Your task to perform on an android device: delete a single message in the gmail app Image 0: 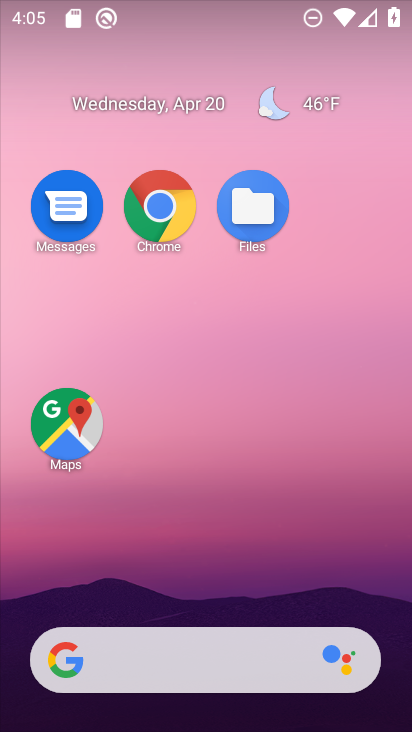
Step 0: drag from (169, 602) to (313, 3)
Your task to perform on an android device: delete a single message in the gmail app Image 1: 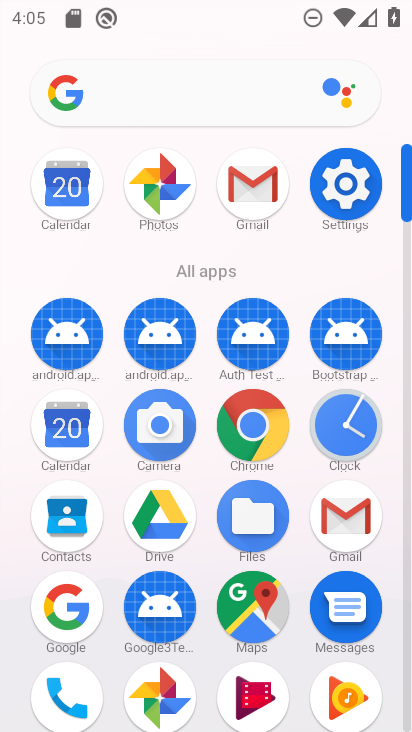
Step 1: click (351, 525)
Your task to perform on an android device: delete a single message in the gmail app Image 2: 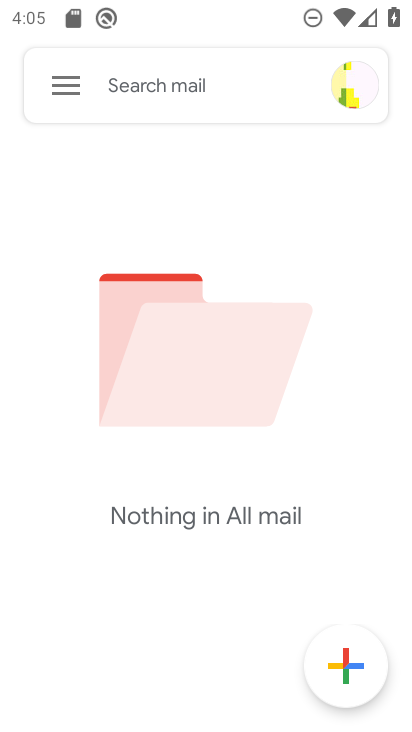
Step 2: task complete